Your task to perform on an android device: Go to wifi settings Image 0: 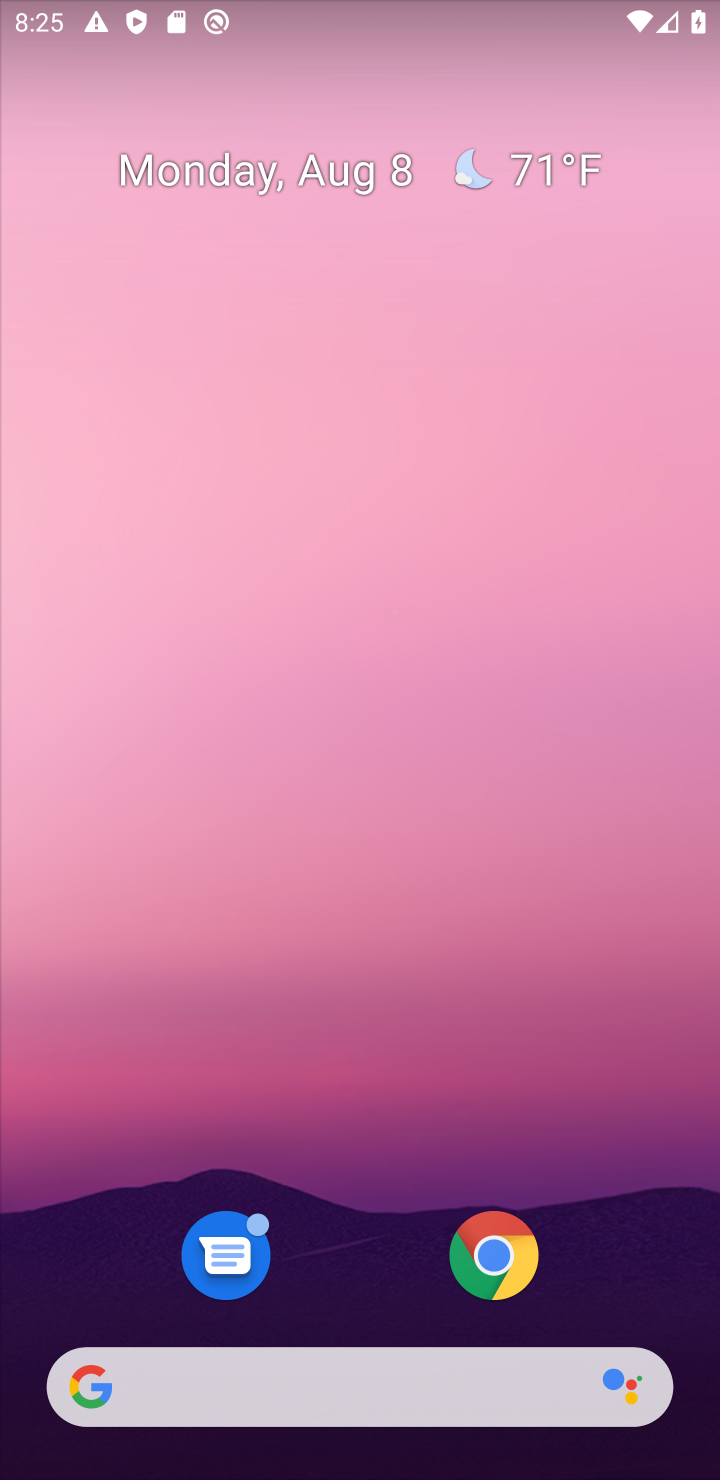
Step 0: drag from (356, 1285) to (341, 40)
Your task to perform on an android device: Go to wifi settings Image 1: 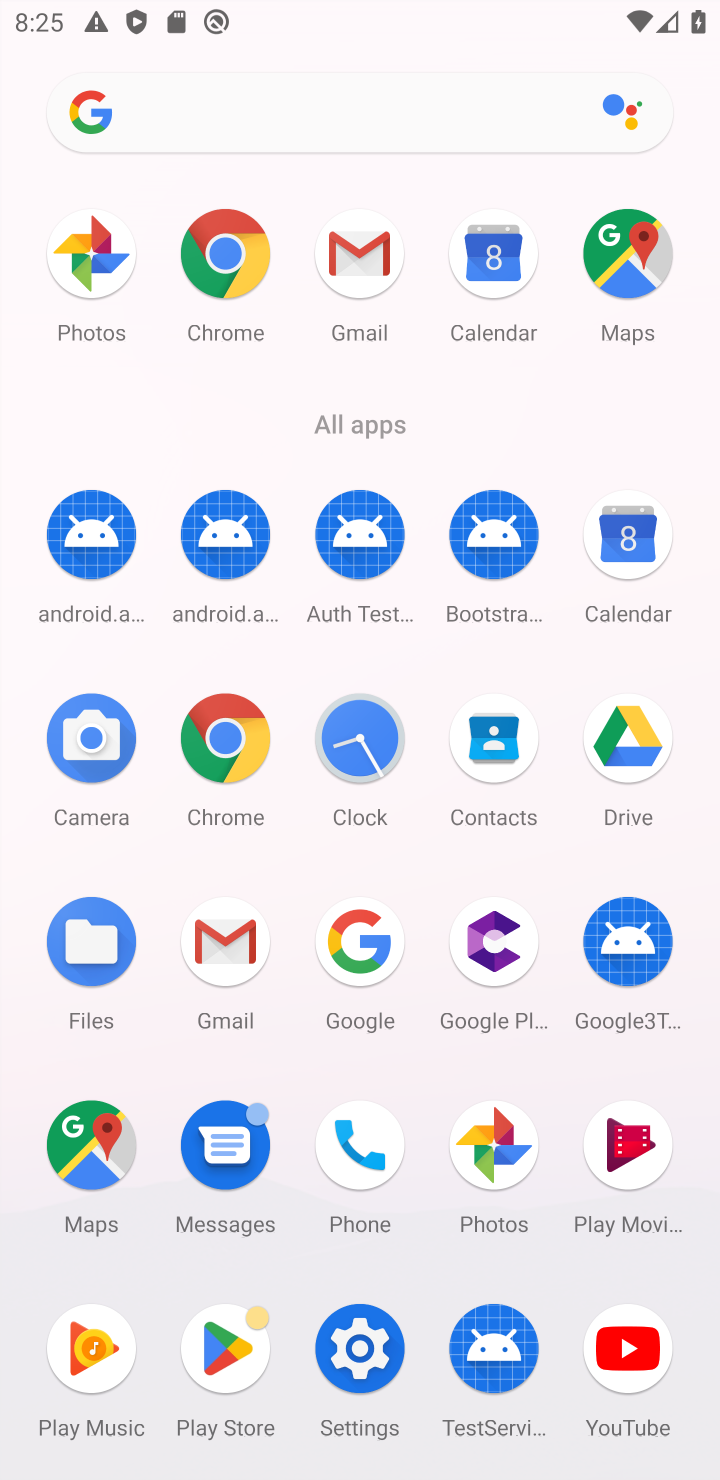
Step 1: click (355, 1341)
Your task to perform on an android device: Go to wifi settings Image 2: 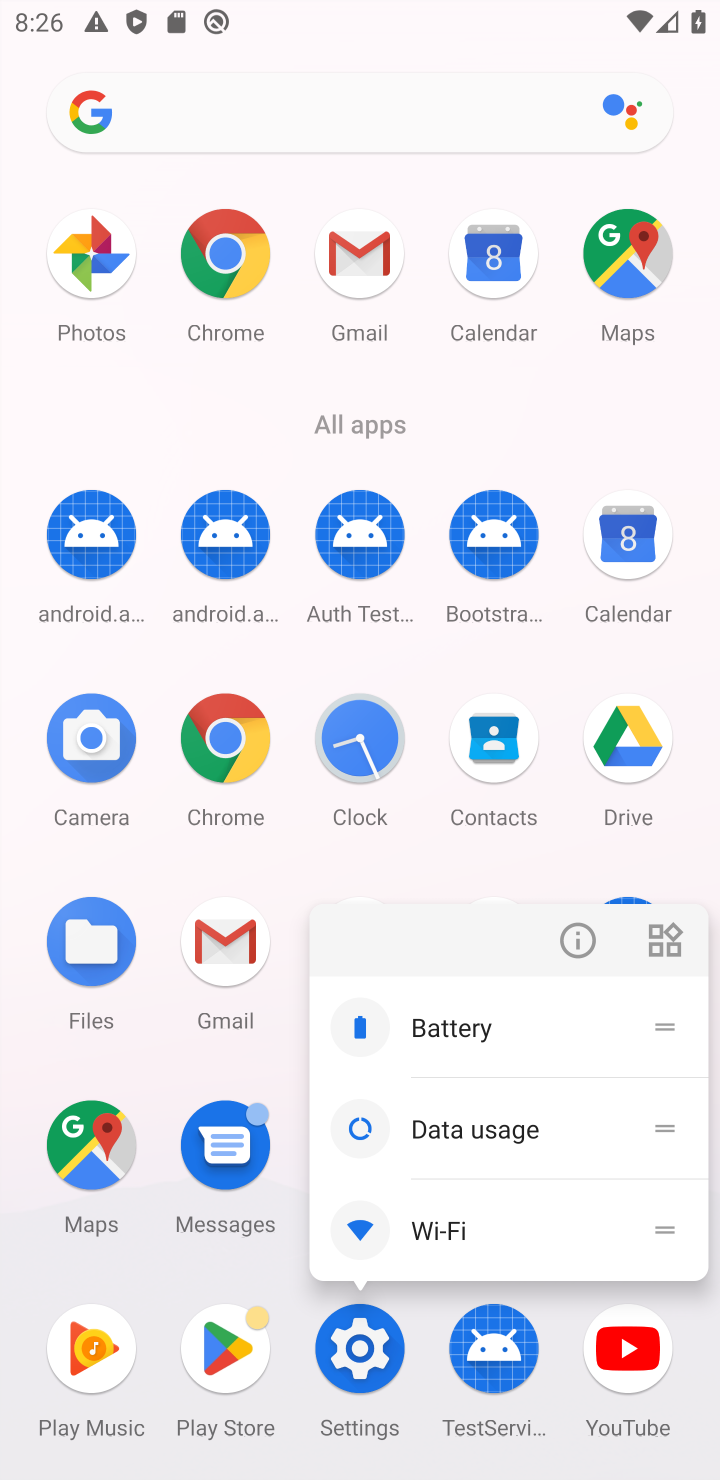
Step 2: click (355, 1341)
Your task to perform on an android device: Go to wifi settings Image 3: 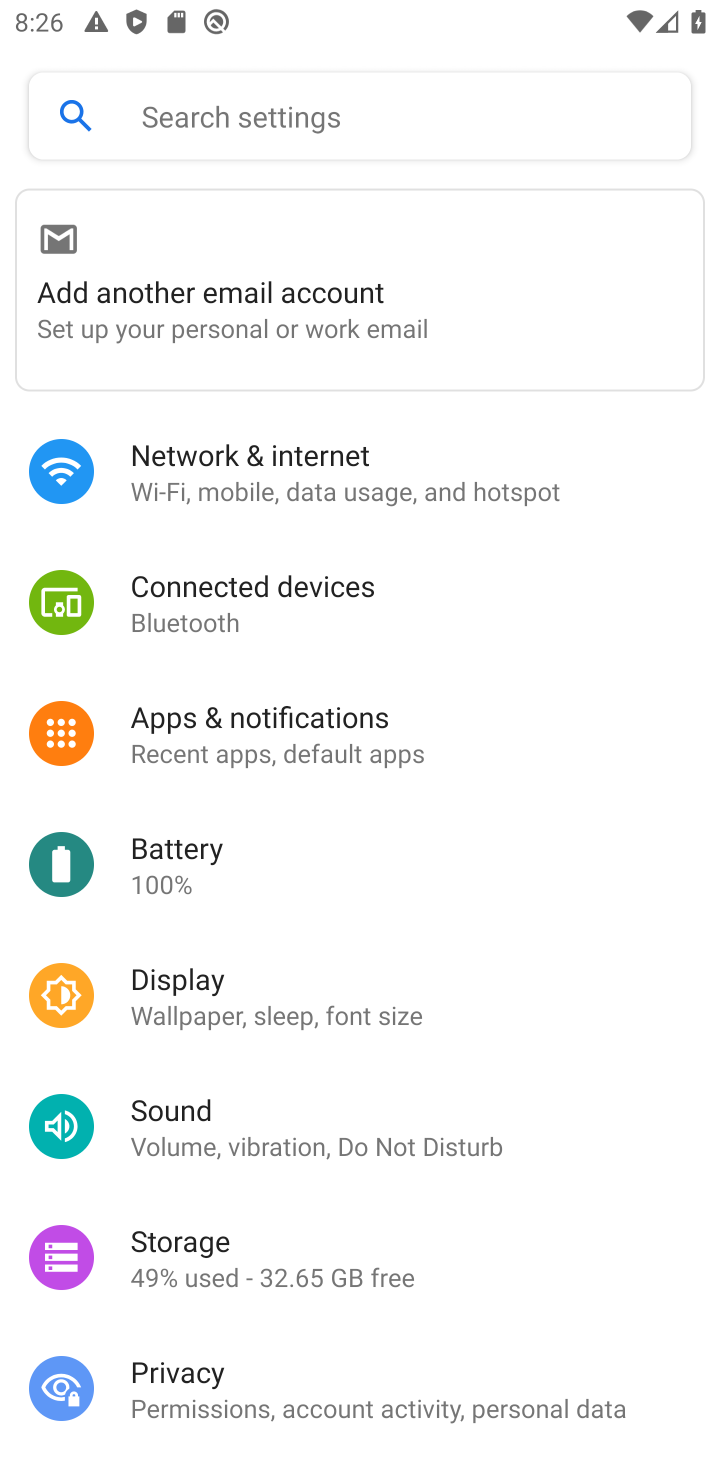
Step 3: click (467, 436)
Your task to perform on an android device: Go to wifi settings Image 4: 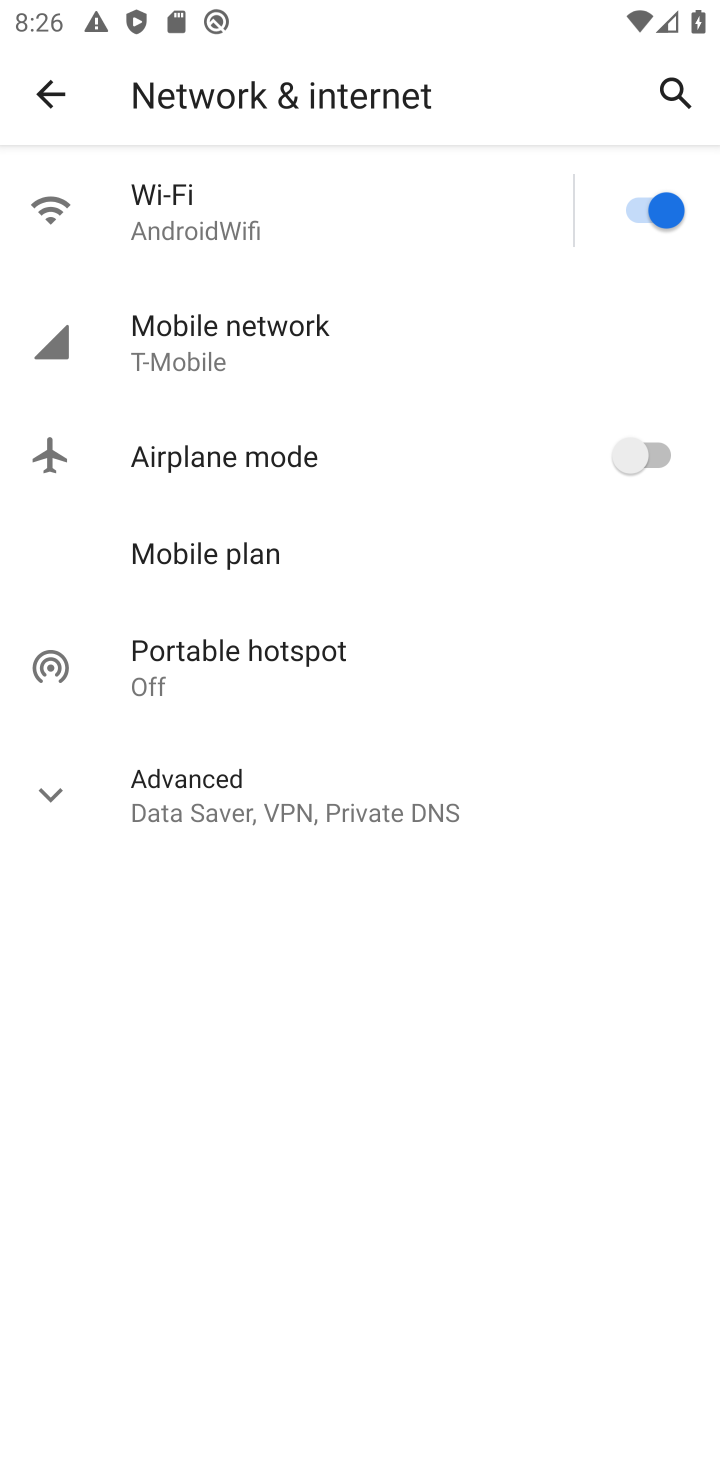
Step 4: click (249, 205)
Your task to perform on an android device: Go to wifi settings Image 5: 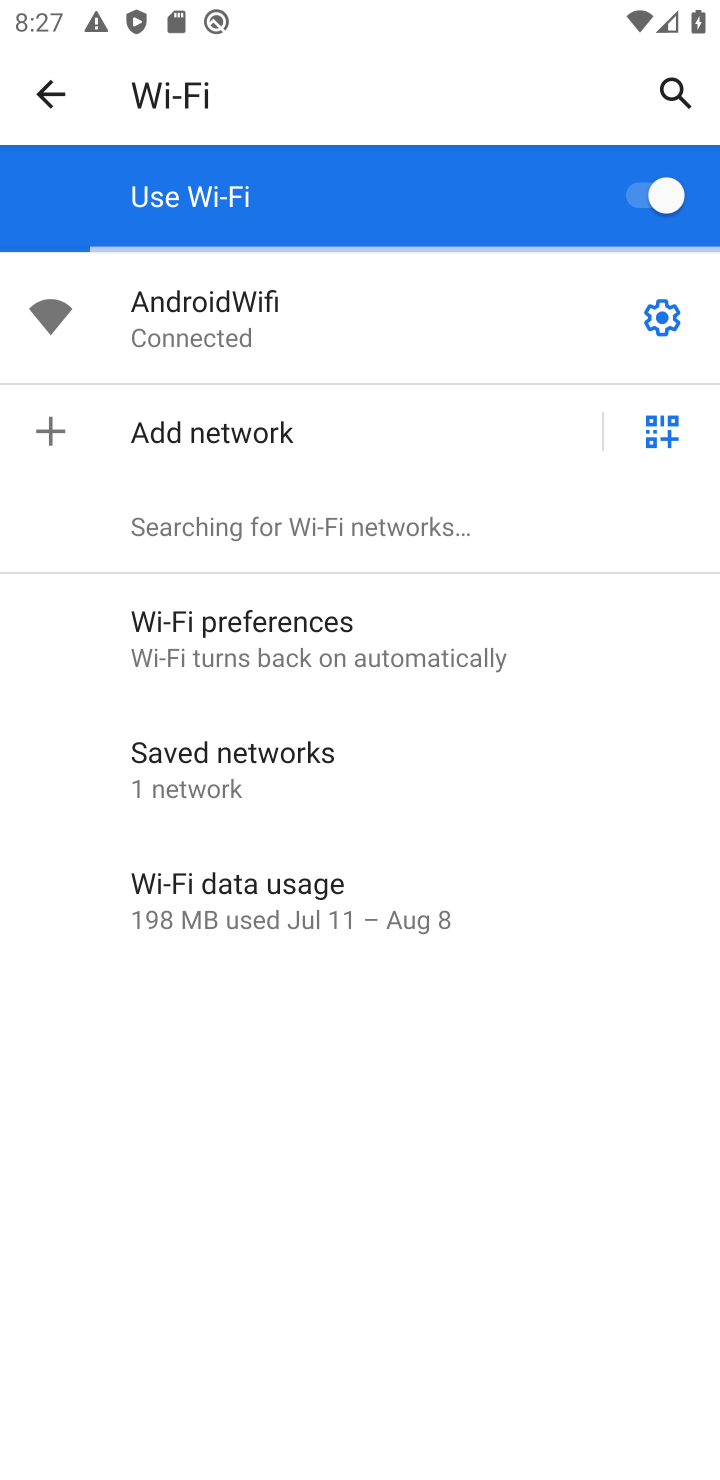
Step 5: task complete